Your task to perform on an android device: Empty the shopping cart on ebay.com. Add "logitech g903" to the cart on ebay.com, then select checkout. Image 0: 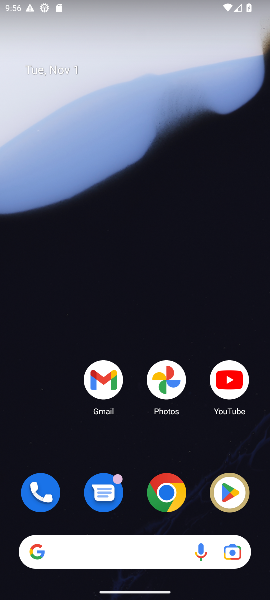
Step 0: click (162, 485)
Your task to perform on an android device: Empty the shopping cart on ebay.com. Add "logitech g903" to the cart on ebay.com, then select checkout. Image 1: 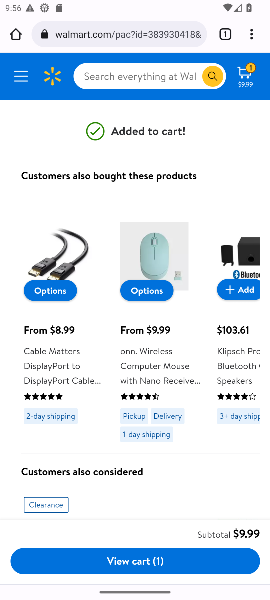
Step 1: click (89, 30)
Your task to perform on an android device: Empty the shopping cart on ebay.com. Add "logitech g903" to the cart on ebay.com, then select checkout. Image 2: 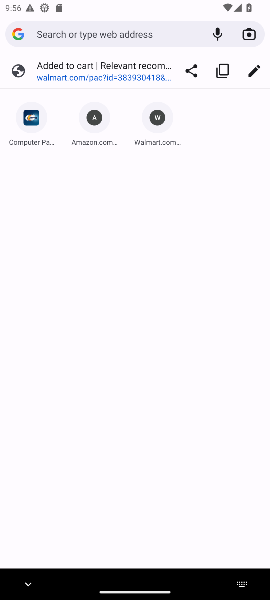
Step 2: type "ebay.com"
Your task to perform on an android device: Empty the shopping cart on ebay.com. Add "logitech g903" to the cart on ebay.com, then select checkout. Image 3: 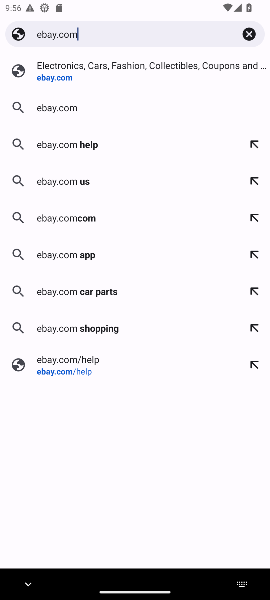
Step 3: click (68, 74)
Your task to perform on an android device: Empty the shopping cart on ebay.com. Add "logitech g903" to the cart on ebay.com, then select checkout. Image 4: 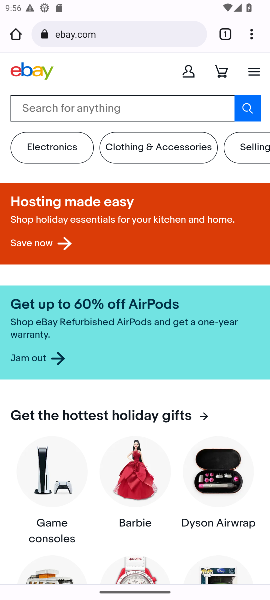
Step 4: click (118, 104)
Your task to perform on an android device: Empty the shopping cart on ebay.com. Add "logitech g903" to the cart on ebay.com, then select checkout. Image 5: 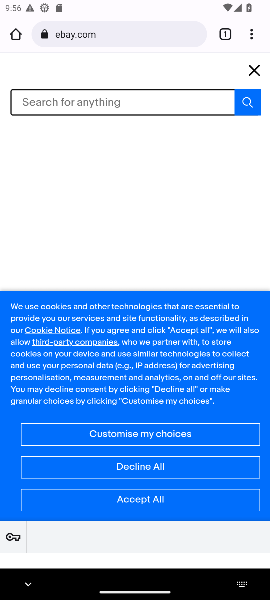
Step 5: type "logitech g 903"
Your task to perform on an android device: Empty the shopping cart on ebay.com. Add "logitech g903" to the cart on ebay.com, then select checkout. Image 6: 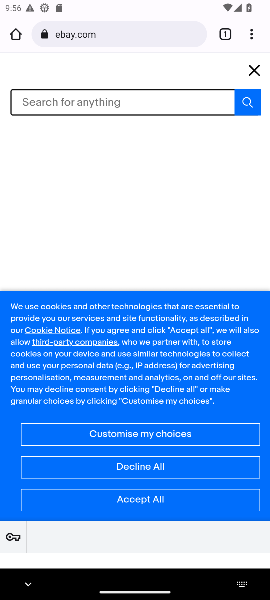
Step 6: type ""
Your task to perform on an android device: Empty the shopping cart on ebay.com. Add "logitech g903" to the cart on ebay.com, then select checkout. Image 7: 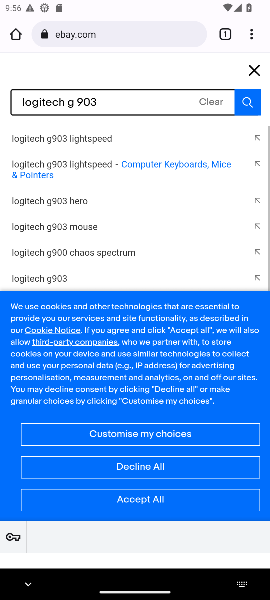
Step 7: click (50, 164)
Your task to perform on an android device: Empty the shopping cart on ebay.com. Add "logitech g903" to the cart on ebay.com, then select checkout. Image 8: 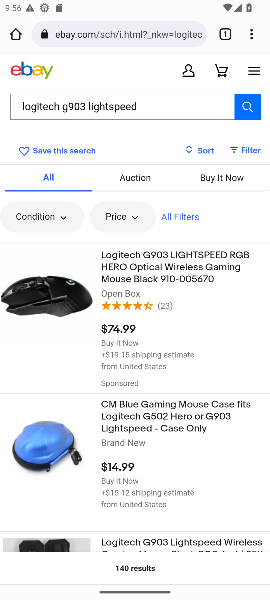
Step 8: click (145, 271)
Your task to perform on an android device: Empty the shopping cart on ebay.com. Add "logitech g903" to the cart on ebay.com, then select checkout. Image 9: 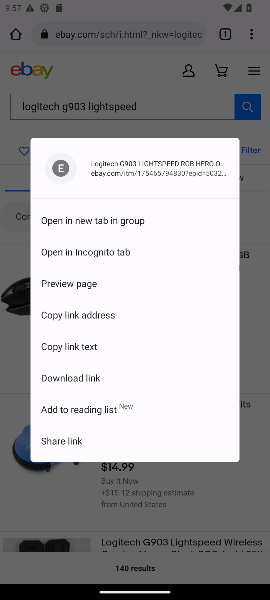
Step 9: click (147, 544)
Your task to perform on an android device: Empty the shopping cart on ebay.com. Add "logitech g903" to the cart on ebay.com, then select checkout. Image 10: 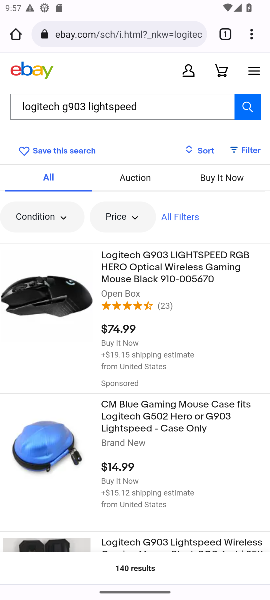
Step 10: drag from (147, 499) to (158, 208)
Your task to perform on an android device: Empty the shopping cart on ebay.com. Add "logitech g903" to the cart on ebay.com, then select checkout. Image 11: 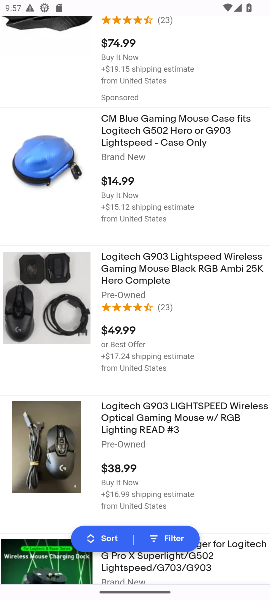
Step 11: click (153, 256)
Your task to perform on an android device: Empty the shopping cart on ebay.com. Add "logitech g903" to the cart on ebay.com, then select checkout. Image 12: 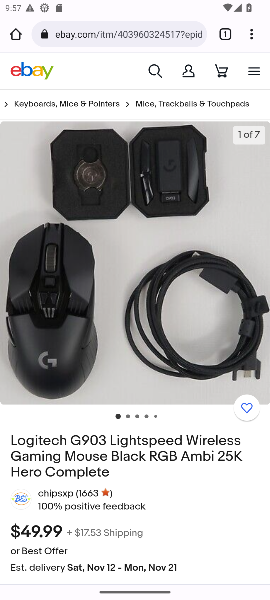
Step 12: drag from (175, 475) to (204, 168)
Your task to perform on an android device: Empty the shopping cart on ebay.com. Add "logitech g903" to the cart on ebay.com, then select checkout. Image 13: 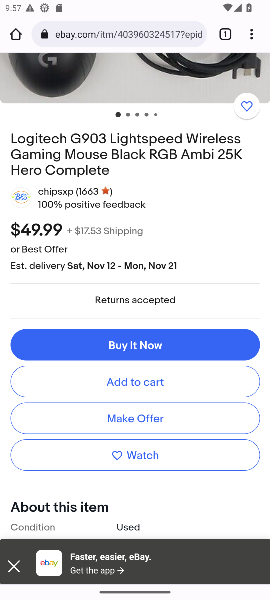
Step 13: click (136, 387)
Your task to perform on an android device: Empty the shopping cart on ebay.com. Add "logitech g903" to the cart on ebay.com, then select checkout. Image 14: 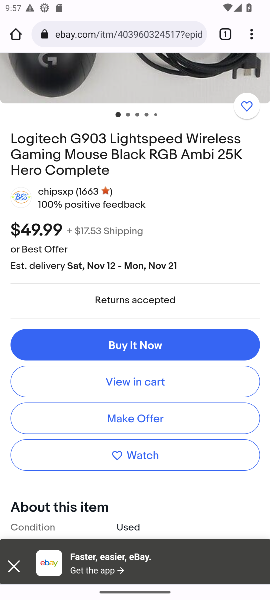
Step 14: click (16, 569)
Your task to perform on an android device: Empty the shopping cart on ebay.com. Add "logitech g903" to the cart on ebay.com, then select checkout. Image 15: 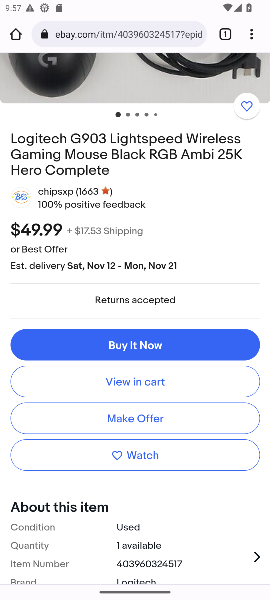
Step 15: click (120, 389)
Your task to perform on an android device: Empty the shopping cart on ebay.com. Add "logitech g903" to the cart on ebay.com, then select checkout. Image 16: 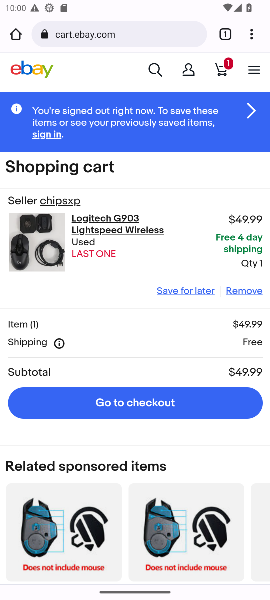
Step 16: click (111, 402)
Your task to perform on an android device: Empty the shopping cart on ebay.com. Add "logitech g903" to the cart on ebay.com, then select checkout. Image 17: 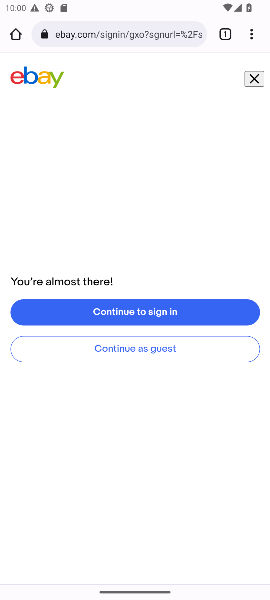
Step 17: task complete